Your task to perform on an android device: set an alarm Image 0: 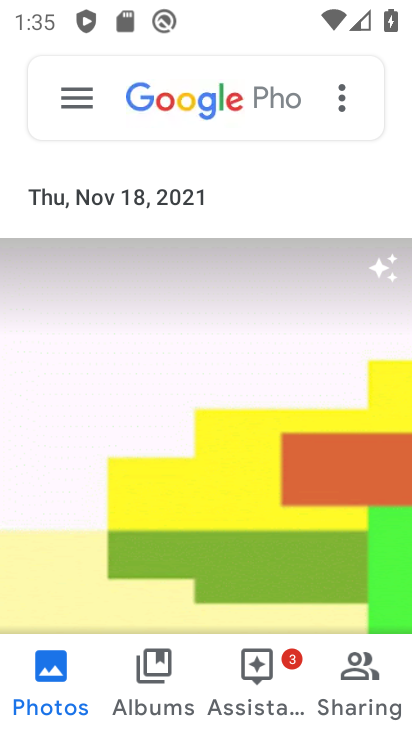
Step 0: press home button
Your task to perform on an android device: set an alarm Image 1: 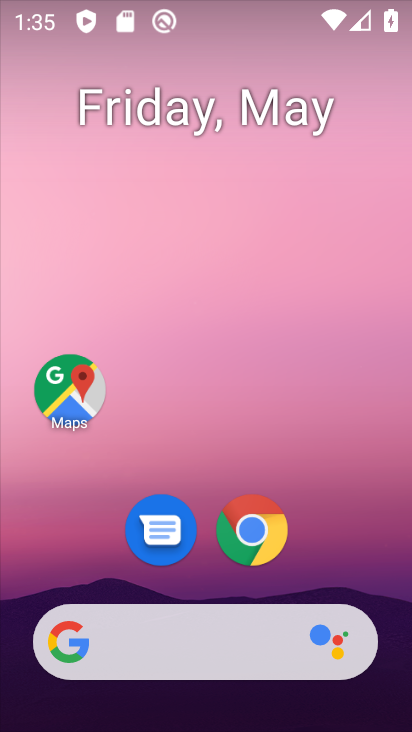
Step 1: drag from (326, 559) to (221, 84)
Your task to perform on an android device: set an alarm Image 2: 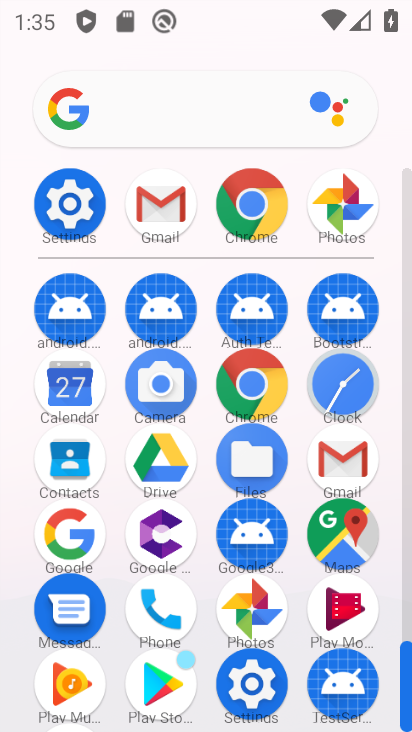
Step 2: click (340, 383)
Your task to perform on an android device: set an alarm Image 3: 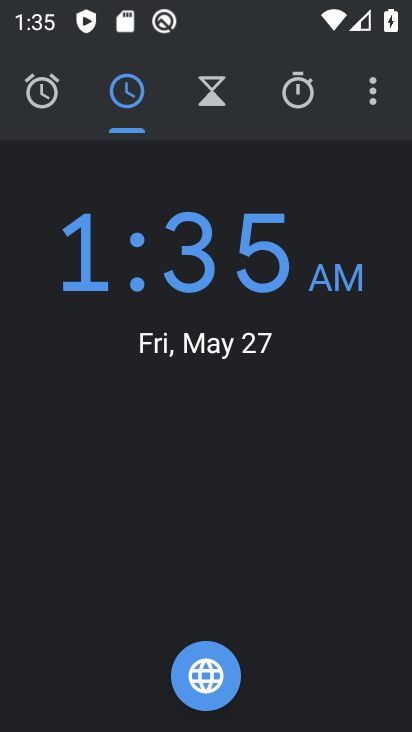
Step 3: click (50, 103)
Your task to perform on an android device: set an alarm Image 4: 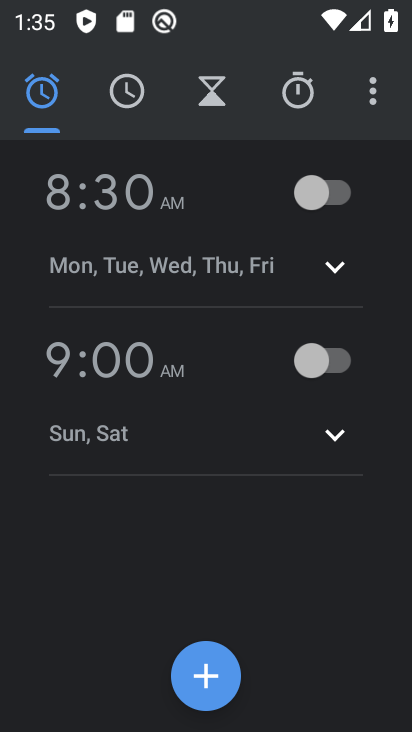
Step 4: click (214, 677)
Your task to perform on an android device: set an alarm Image 5: 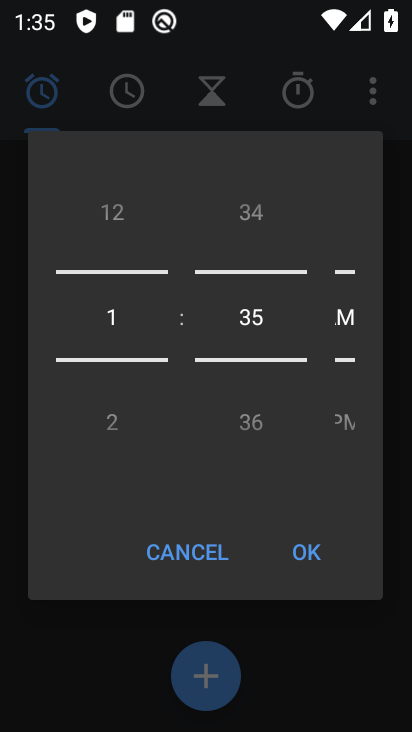
Step 5: click (308, 561)
Your task to perform on an android device: set an alarm Image 6: 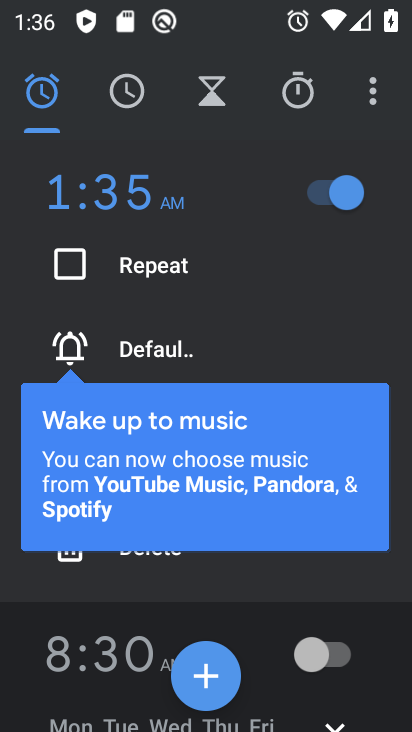
Step 6: task complete